Your task to perform on an android device: turn on improve location accuracy Image 0: 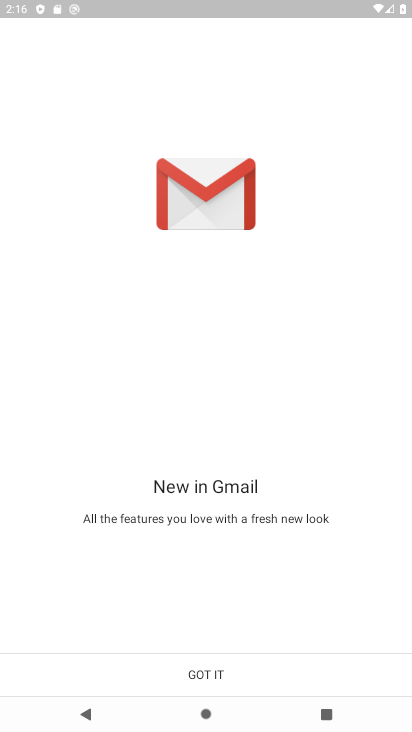
Step 0: press home button
Your task to perform on an android device: turn on improve location accuracy Image 1: 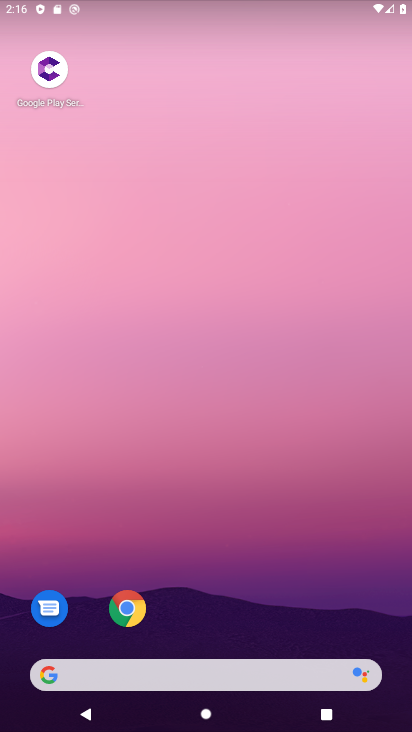
Step 1: drag from (225, 619) to (239, 16)
Your task to perform on an android device: turn on improve location accuracy Image 2: 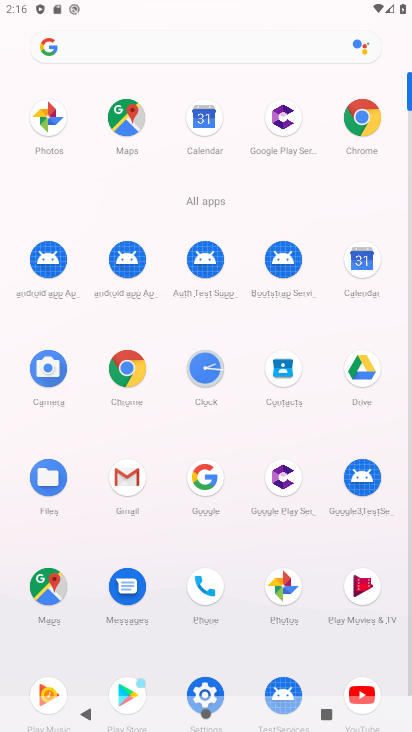
Step 2: drag from (149, 601) to (179, 255)
Your task to perform on an android device: turn on improve location accuracy Image 3: 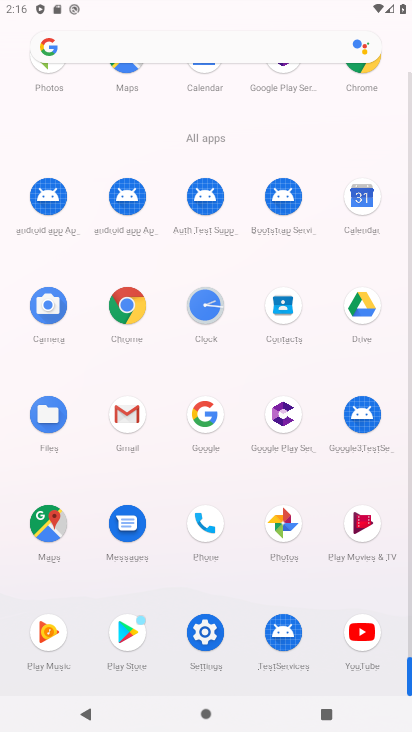
Step 3: click (203, 639)
Your task to perform on an android device: turn on improve location accuracy Image 4: 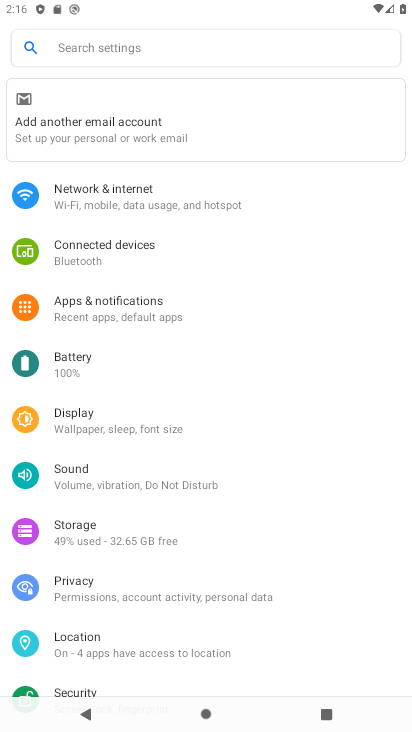
Step 4: click (121, 636)
Your task to perform on an android device: turn on improve location accuracy Image 5: 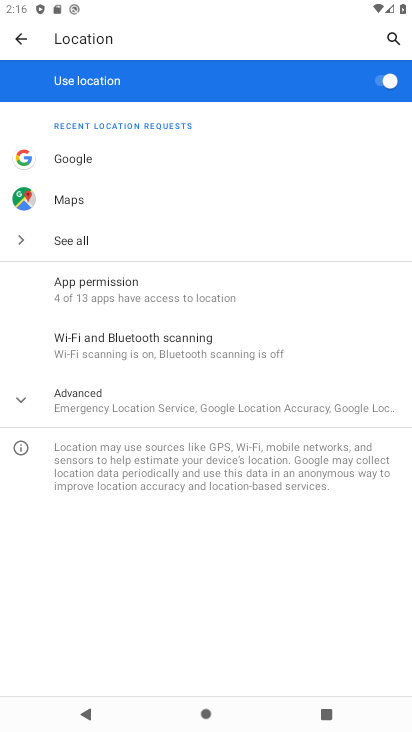
Step 5: click (109, 397)
Your task to perform on an android device: turn on improve location accuracy Image 6: 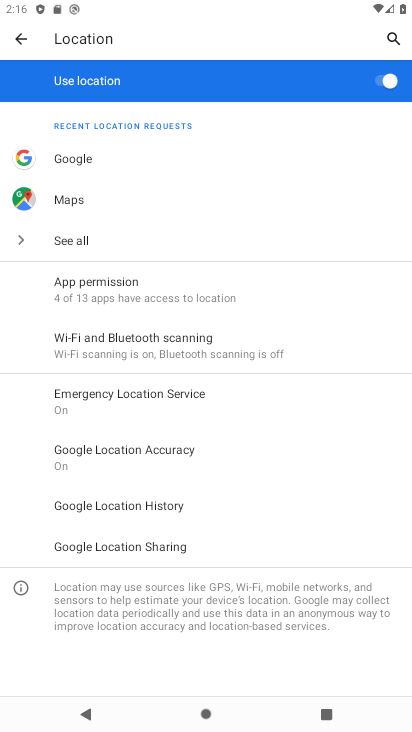
Step 6: click (122, 456)
Your task to perform on an android device: turn on improve location accuracy Image 7: 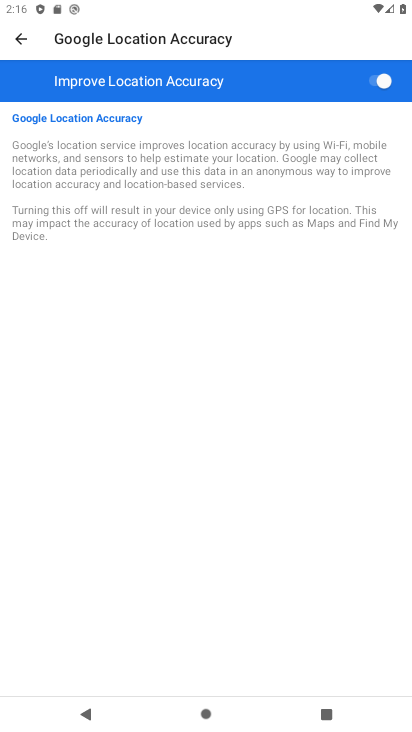
Step 7: task complete